Your task to perform on an android device: install app "Duolingo: language lessons" Image 0: 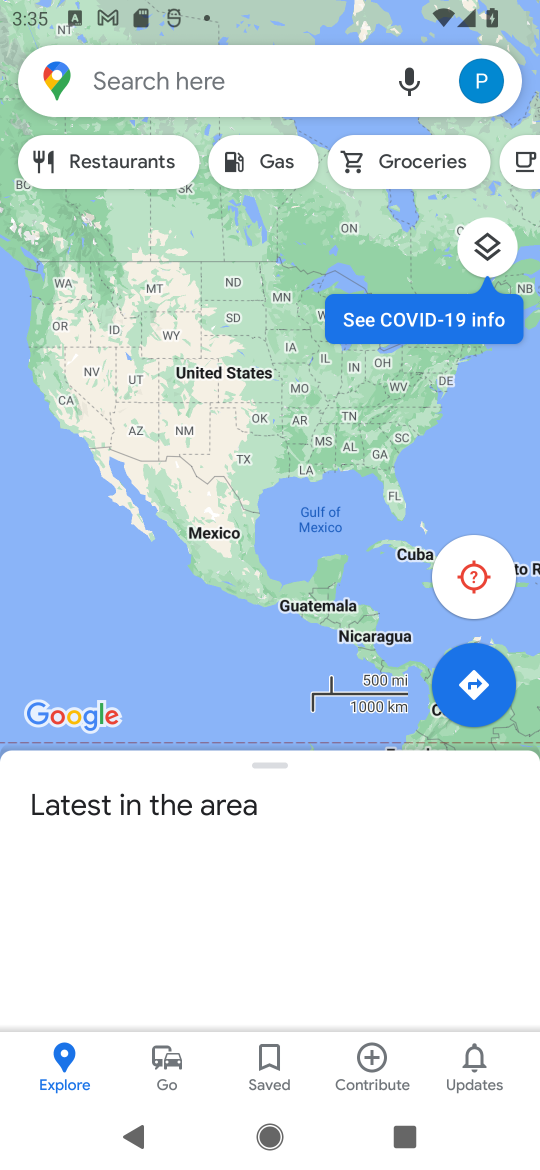
Step 0: press home button
Your task to perform on an android device: install app "Duolingo: language lessons" Image 1: 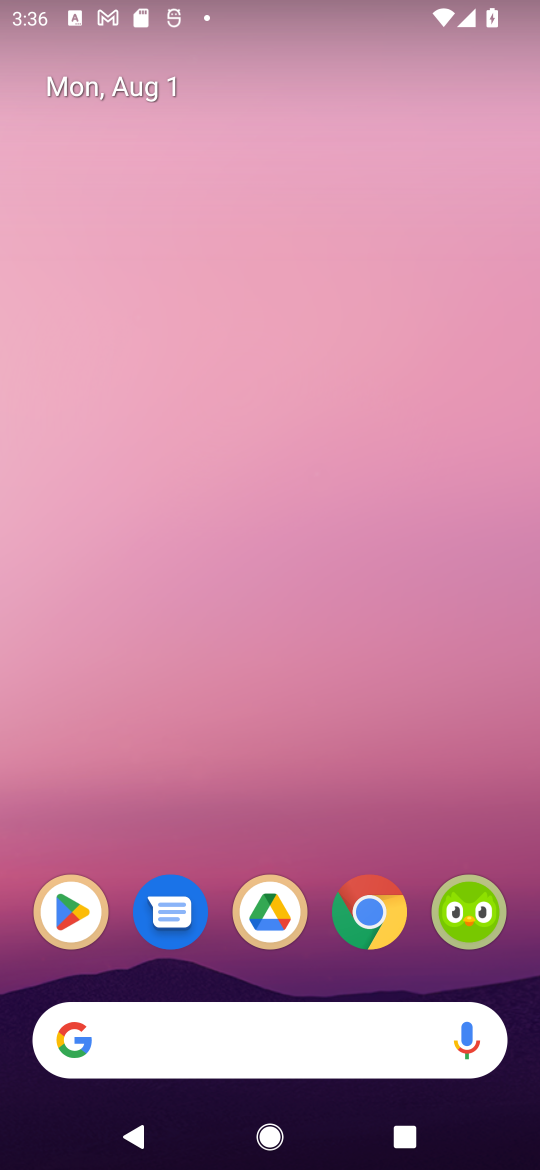
Step 1: click (60, 927)
Your task to perform on an android device: install app "Duolingo: language lessons" Image 2: 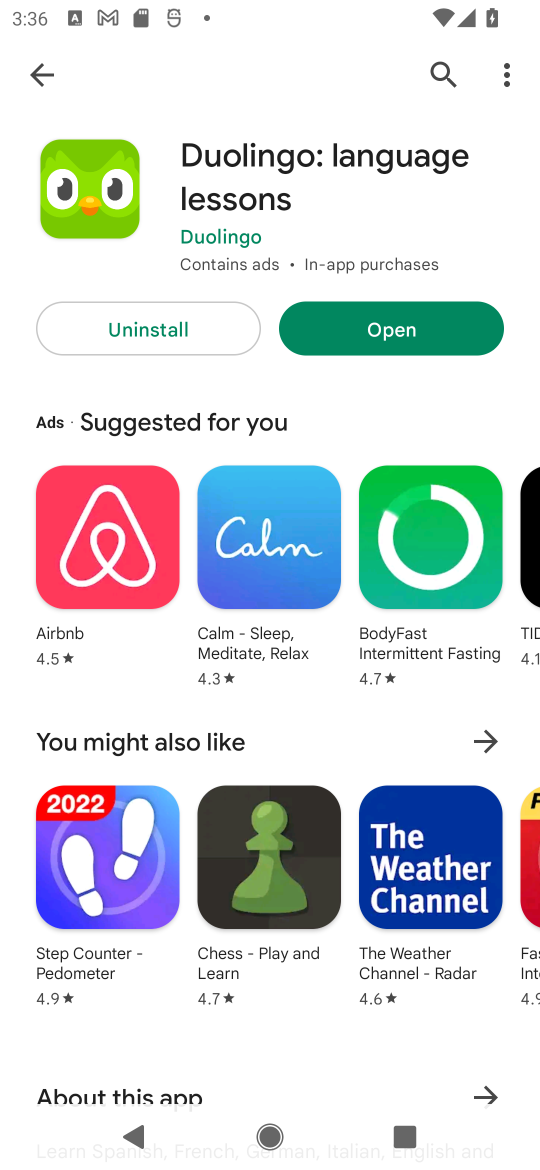
Step 2: task complete